Your task to perform on an android device: install app "McDonald's" Image 0: 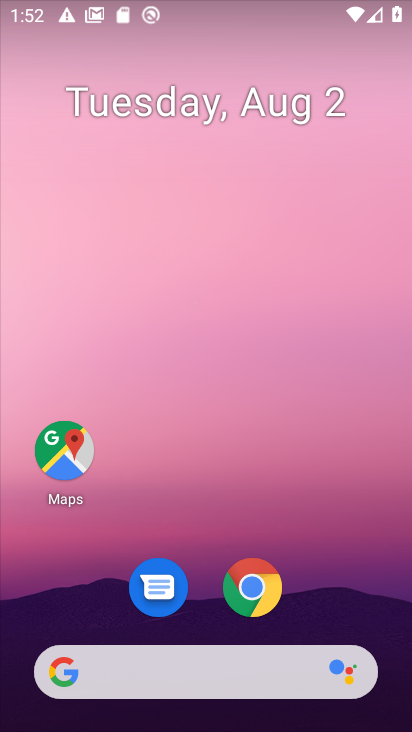
Step 0: drag from (210, 562) to (205, 194)
Your task to perform on an android device: install app "McDonald's" Image 1: 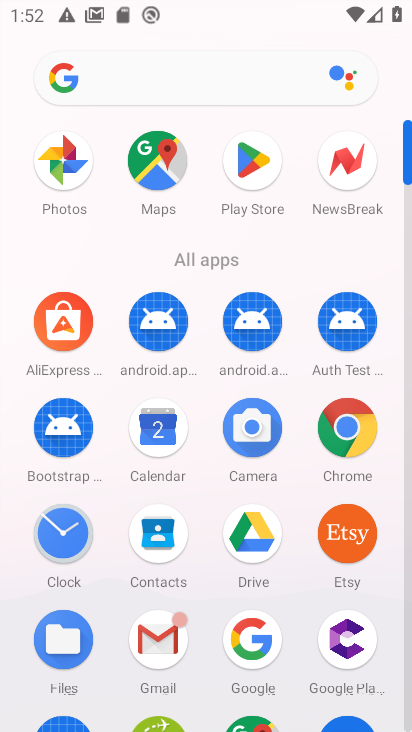
Step 1: click (252, 184)
Your task to perform on an android device: install app "McDonald's" Image 2: 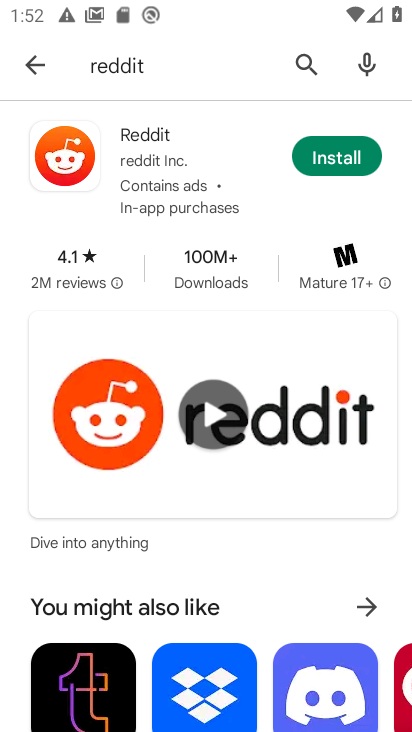
Step 2: drag from (299, 66) to (352, 66)
Your task to perform on an android device: install app "McDonald's" Image 3: 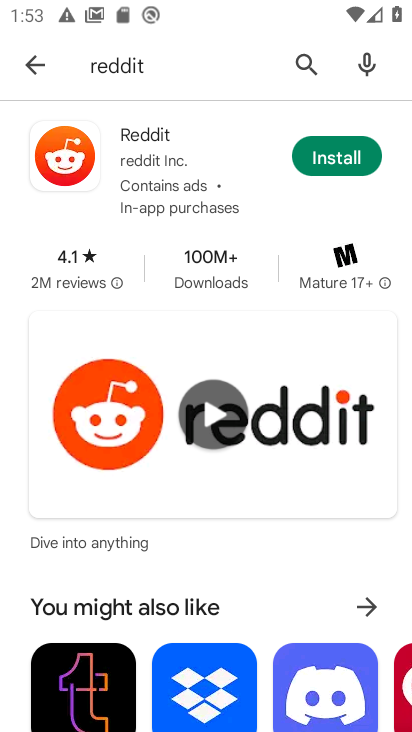
Step 3: click (297, 69)
Your task to perform on an android device: install app "McDonald's" Image 4: 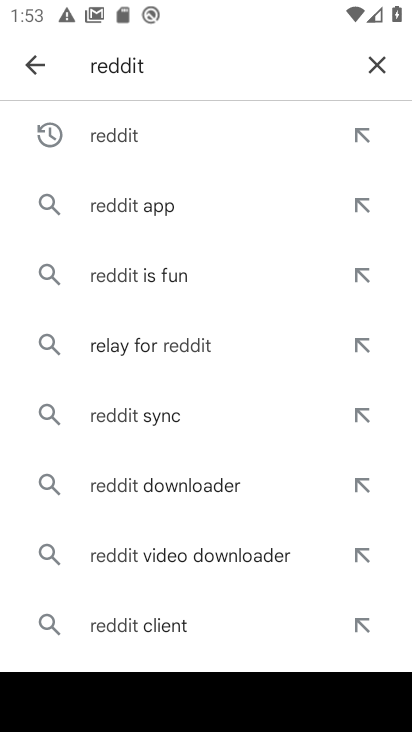
Step 4: click (362, 72)
Your task to perform on an android device: install app "McDonald's" Image 5: 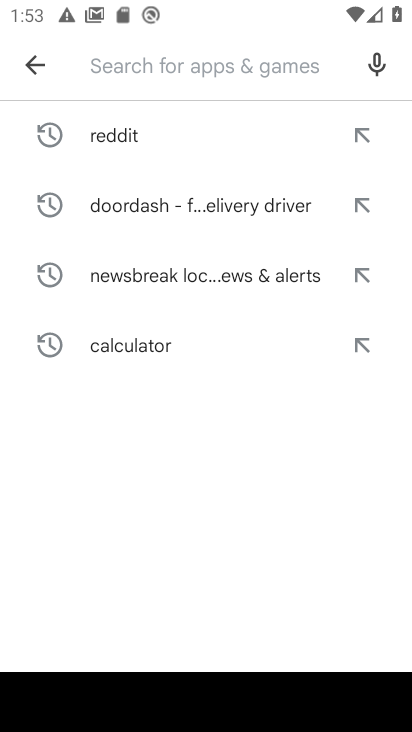
Step 5: type "McDonald's"
Your task to perform on an android device: install app "McDonald's" Image 6: 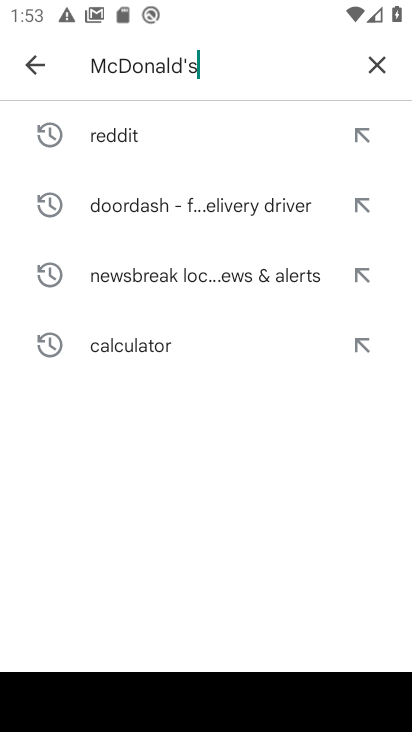
Step 6: type ""
Your task to perform on an android device: install app "McDonald's" Image 7: 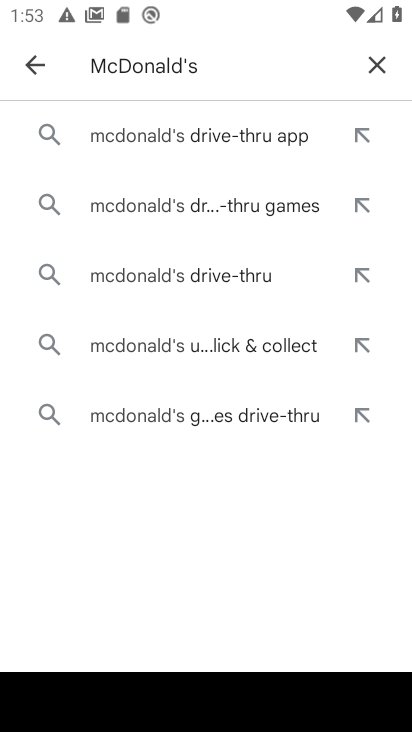
Step 7: click (191, 139)
Your task to perform on an android device: install app "McDonald's" Image 8: 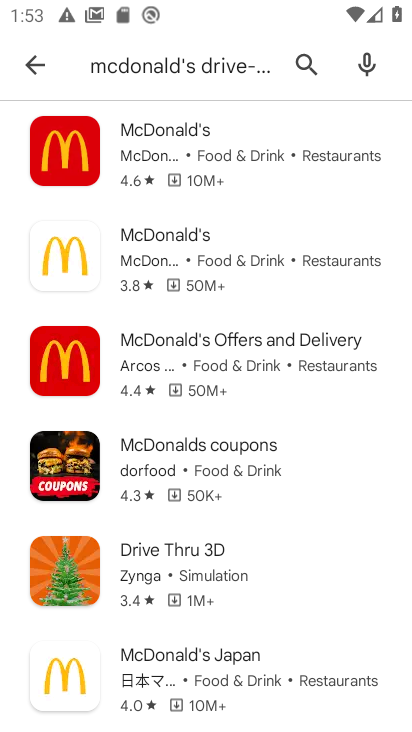
Step 8: click (213, 149)
Your task to perform on an android device: install app "McDonald's" Image 9: 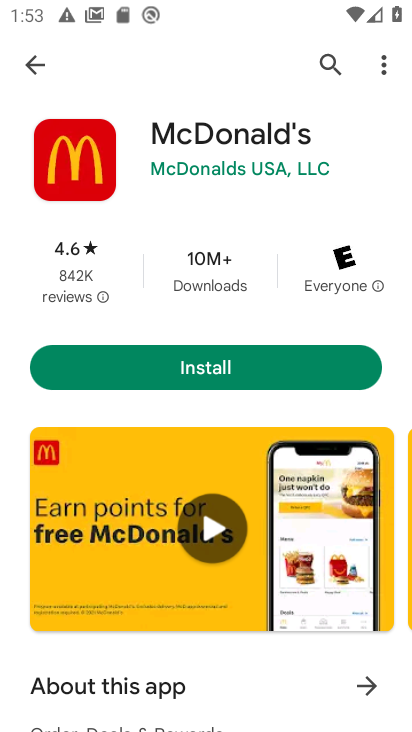
Step 9: click (263, 366)
Your task to perform on an android device: install app "McDonald's" Image 10: 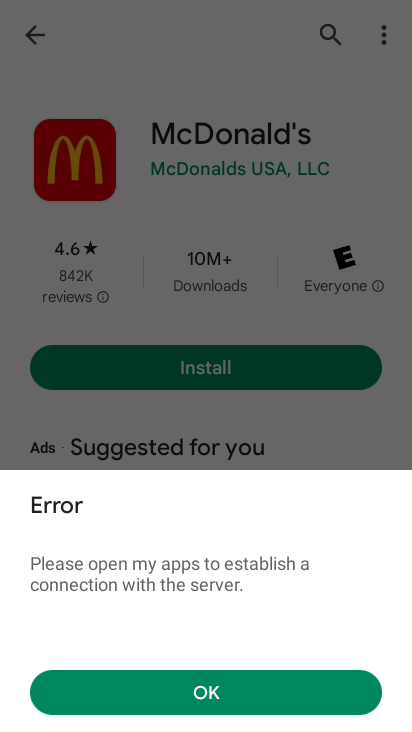
Step 10: click (221, 697)
Your task to perform on an android device: install app "McDonald's" Image 11: 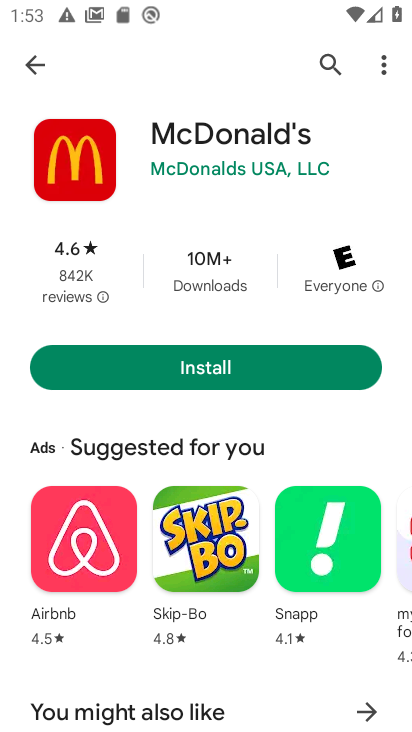
Step 11: task complete